Your task to perform on an android device: Open Google Chrome Image 0: 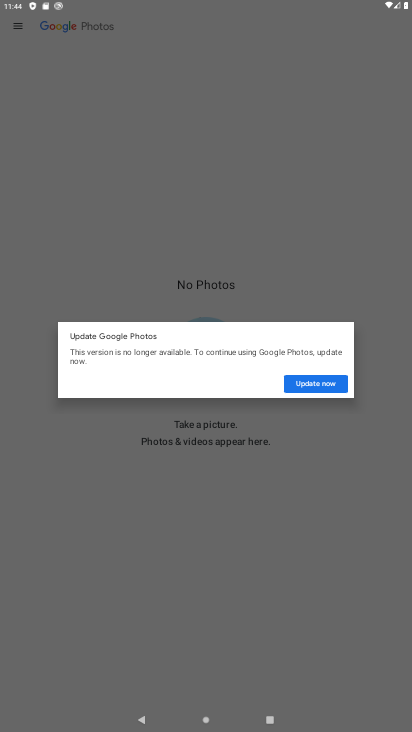
Step 0: press home button
Your task to perform on an android device: Open Google Chrome Image 1: 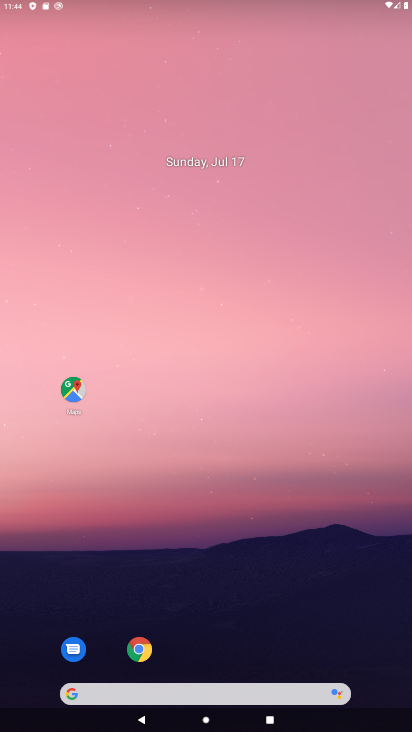
Step 1: press home button
Your task to perform on an android device: Open Google Chrome Image 2: 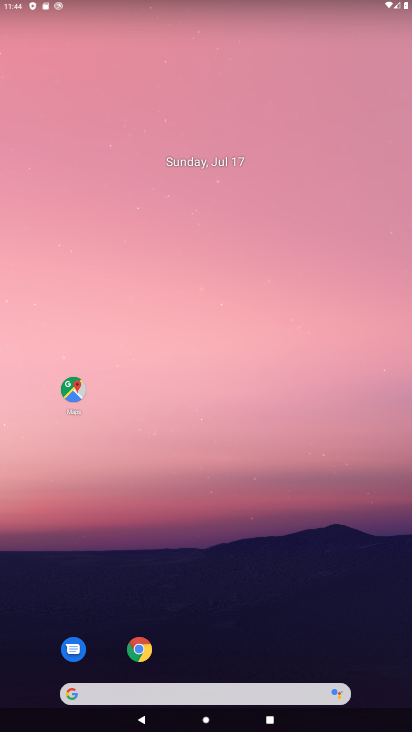
Step 2: click (138, 645)
Your task to perform on an android device: Open Google Chrome Image 3: 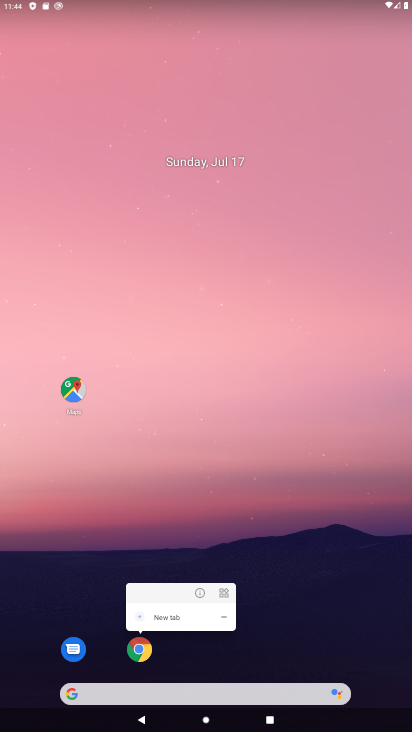
Step 3: click (133, 654)
Your task to perform on an android device: Open Google Chrome Image 4: 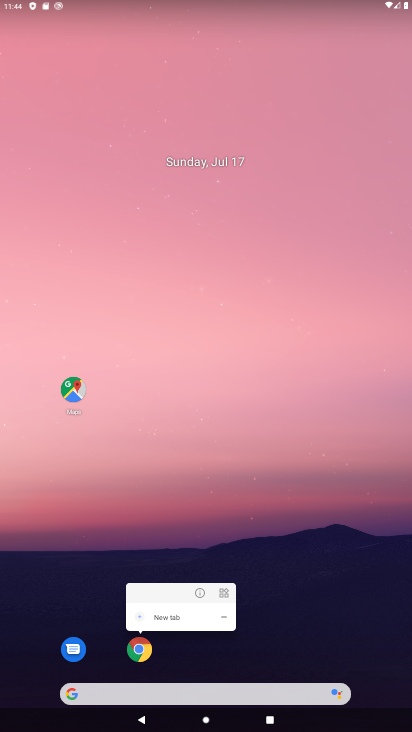
Step 4: click (133, 654)
Your task to perform on an android device: Open Google Chrome Image 5: 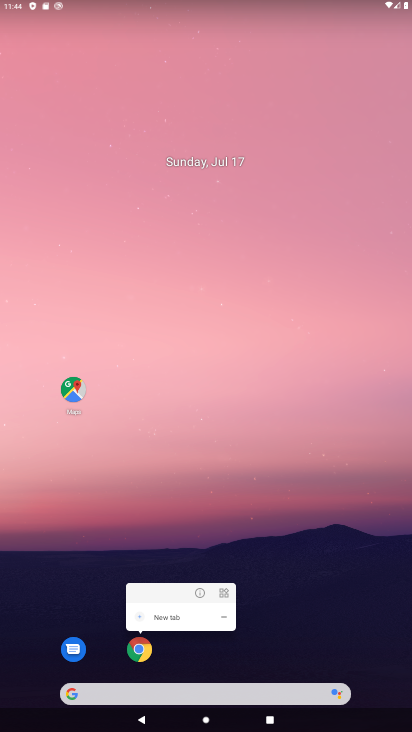
Step 5: task complete